Your task to perform on an android device: Open eBay Image 0: 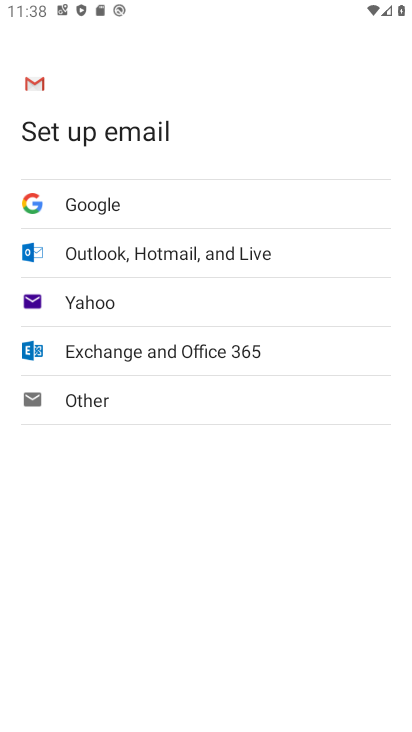
Step 0: press home button
Your task to perform on an android device: Open eBay Image 1: 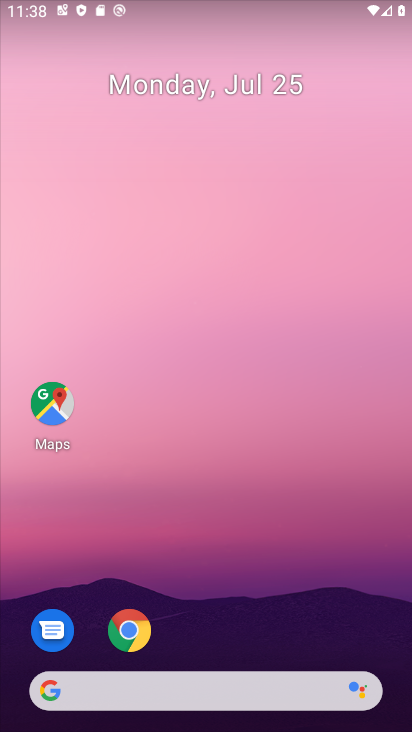
Step 1: drag from (348, 608) to (359, 145)
Your task to perform on an android device: Open eBay Image 2: 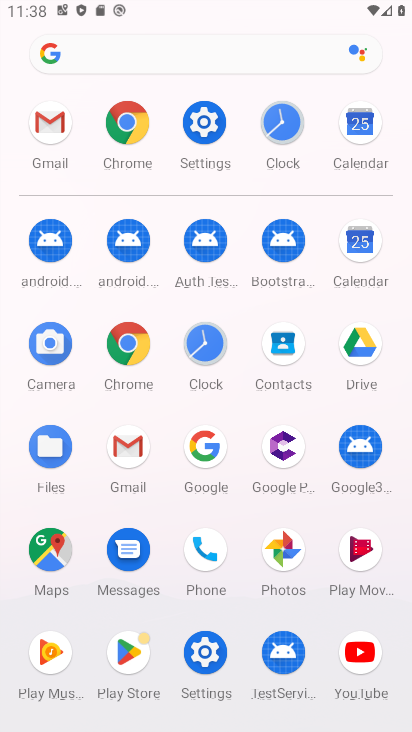
Step 2: click (132, 337)
Your task to perform on an android device: Open eBay Image 3: 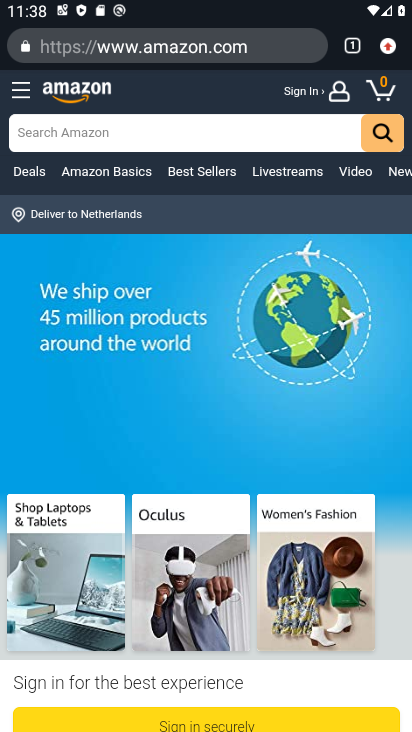
Step 3: click (208, 46)
Your task to perform on an android device: Open eBay Image 4: 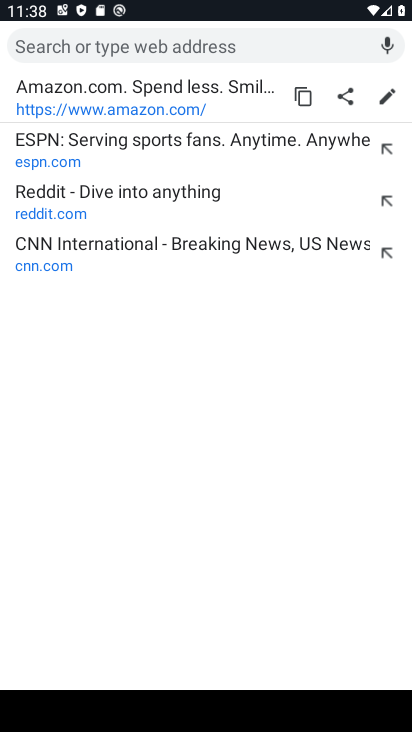
Step 4: type "ebay"
Your task to perform on an android device: Open eBay Image 5: 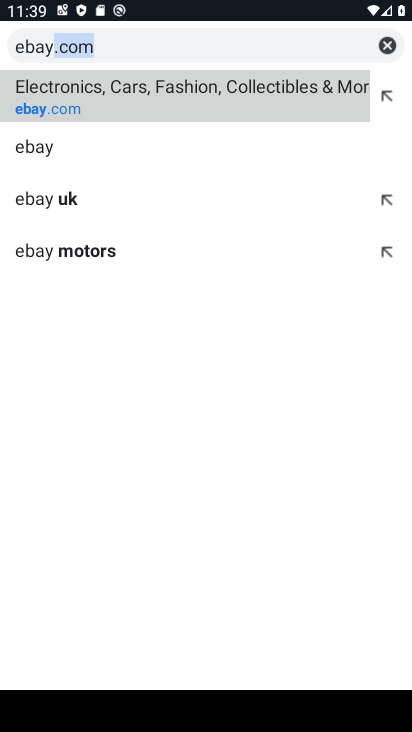
Step 5: click (283, 94)
Your task to perform on an android device: Open eBay Image 6: 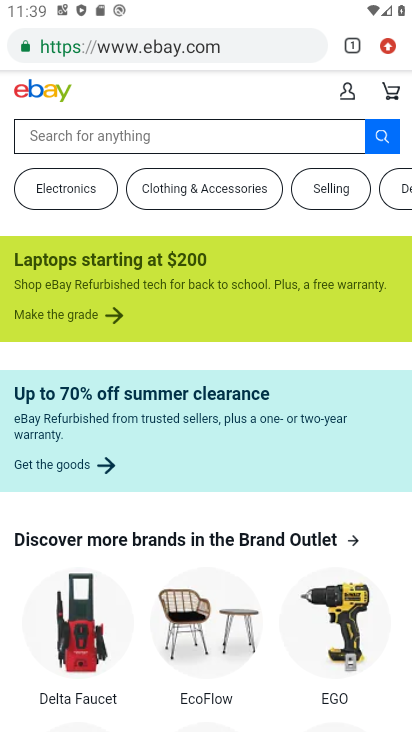
Step 6: task complete